Your task to perform on an android device: create a new album in the google photos Image 0: 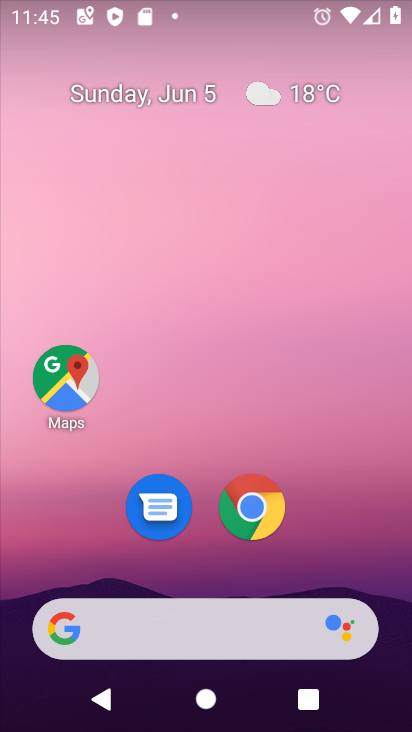
Step 0: drag from (236, 720) to (220, 39)
Your task to perform on an android device: create a new album in the google photos Image 1: 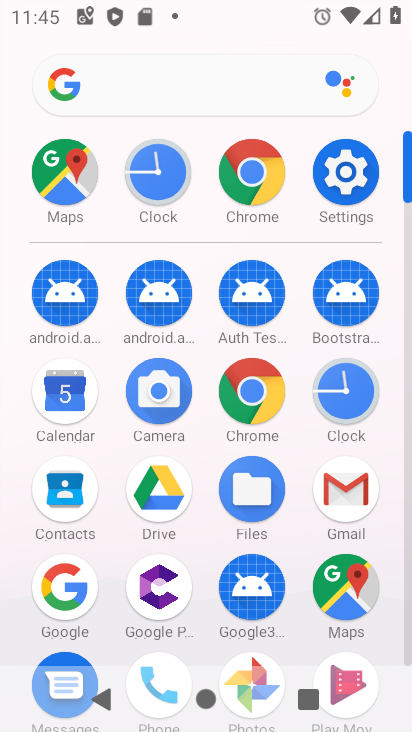
Step 1: drag from (291, 629) to (297, 286)
Your task to perform on an android device: create a new album in the google photos Image 2: 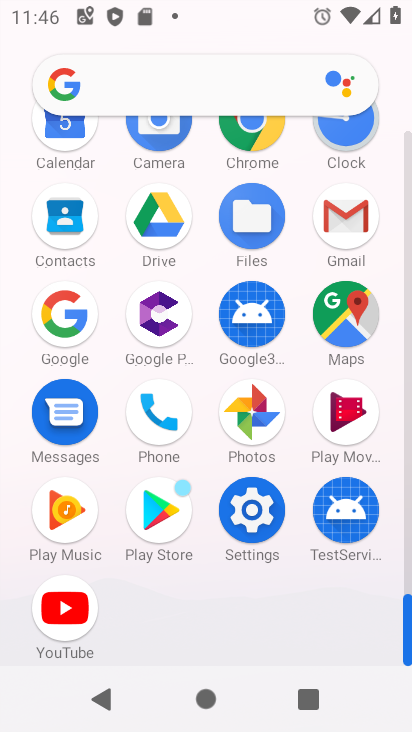
Step 2: click (251, 427)
Your task to perform on an android device: create a new album in the google photos Image 3: 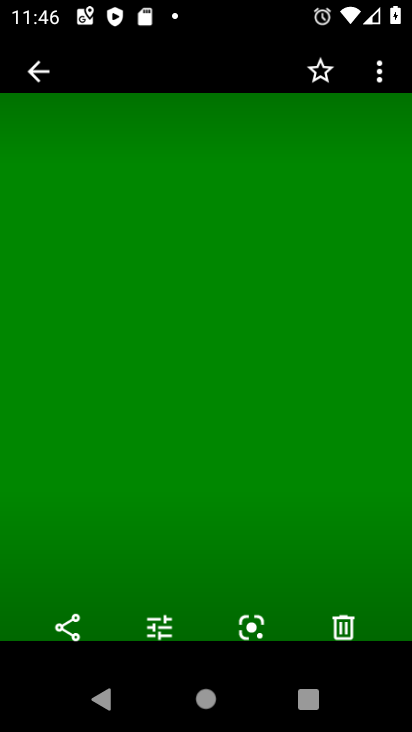
Step 3: click (34, 70)
Your task to perform on an android device: create a new album in the google photos Image 4: 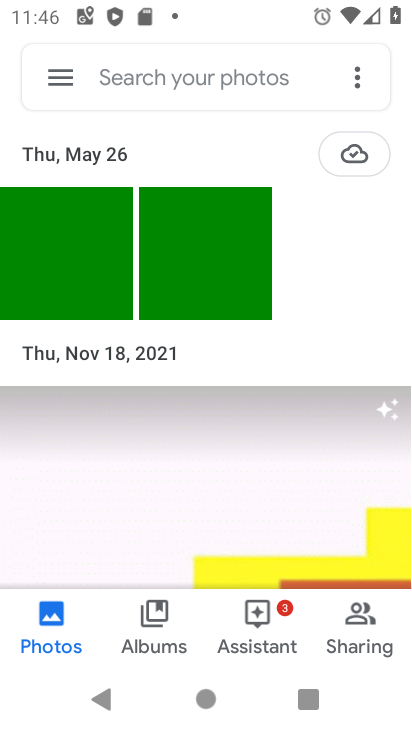
Step 4: click (356, 81)
Your task to perform on an android device: create a new album in the google photos Image 5: 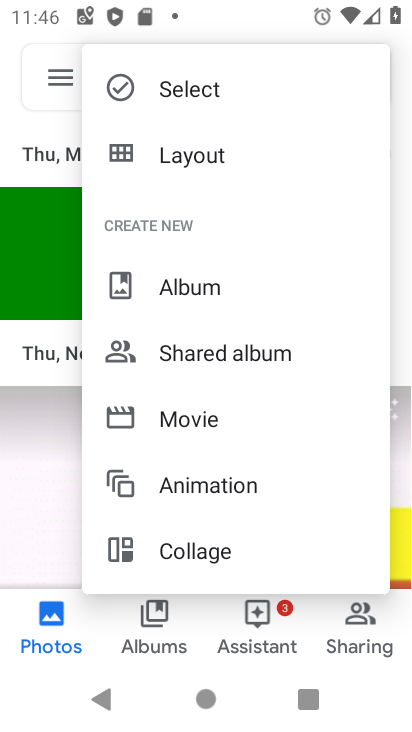
Step 5: click (201, 281)
Your task to perform on an android device: create a new album in the google photos Image 6: 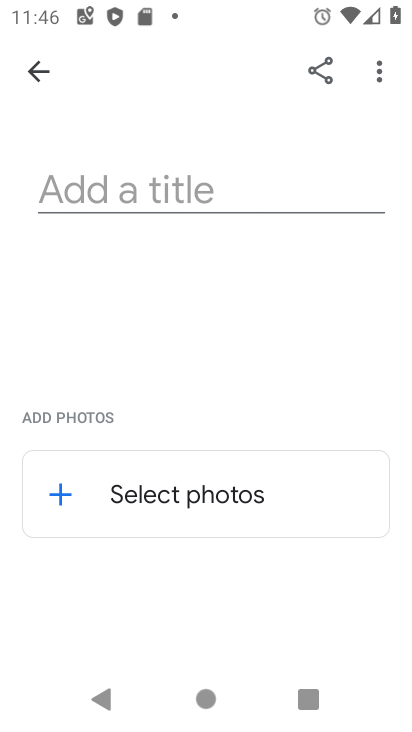
Step 6: click (224, 195)
Your task to perform on an android device: create a new album in the google photos Image 7: 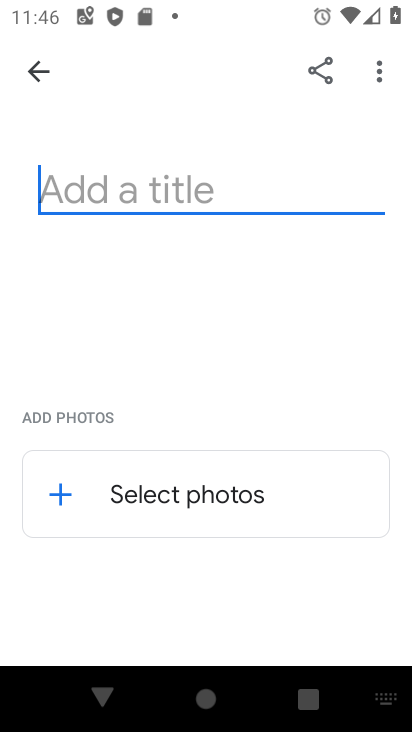
Step 7: type "leech"
Your task to perform on an android device: create a new album in the google photos Image 8: 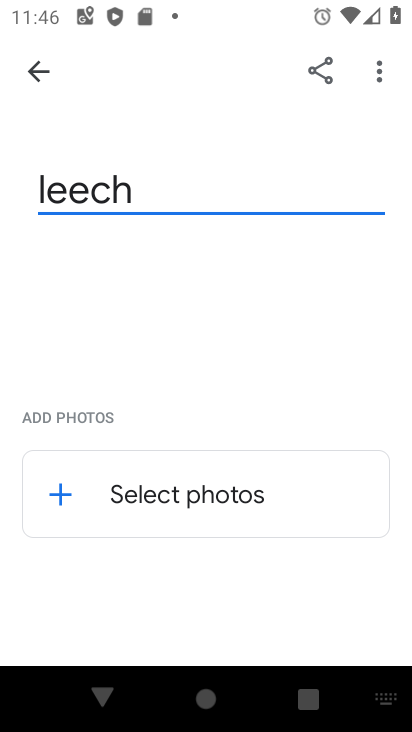
Step 8: click (243, 392)
Your task to perform on an android device: create a new album in the google photos Image 9: 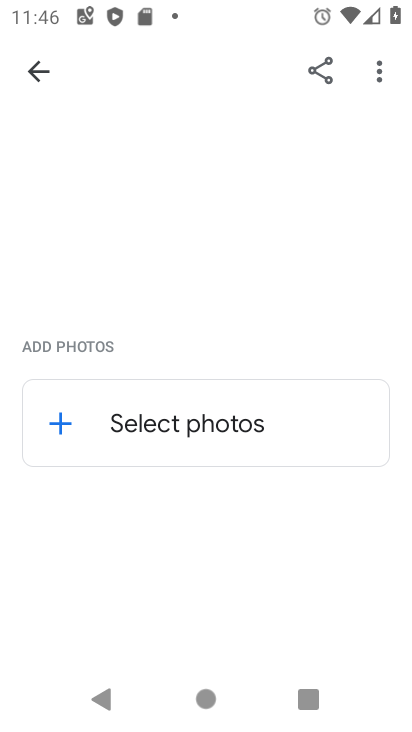
Step 9: click (56, 423)
Your task to perform on an android device: create a new album in the google photos Image 10: 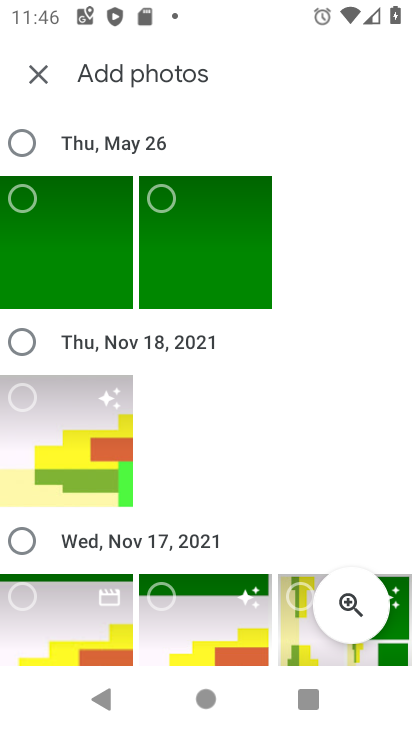
Step 10: click (18, 392)
Your task to perform on an android device: create a new album in the google photos Image 11: 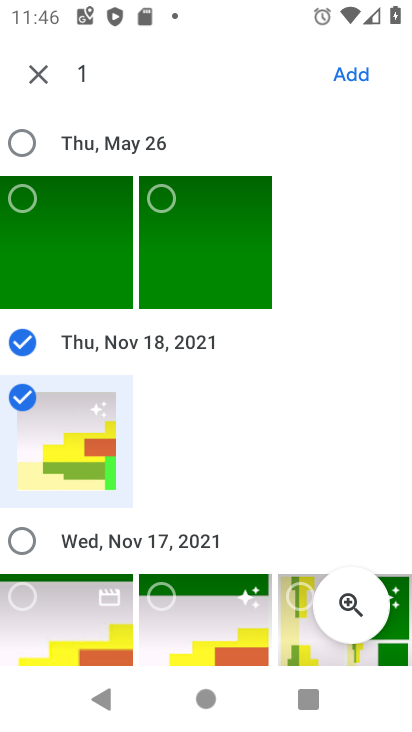
Step 11: click (161, 197)
Your task to perform on an android device: create a new album in the google photos Image 12: 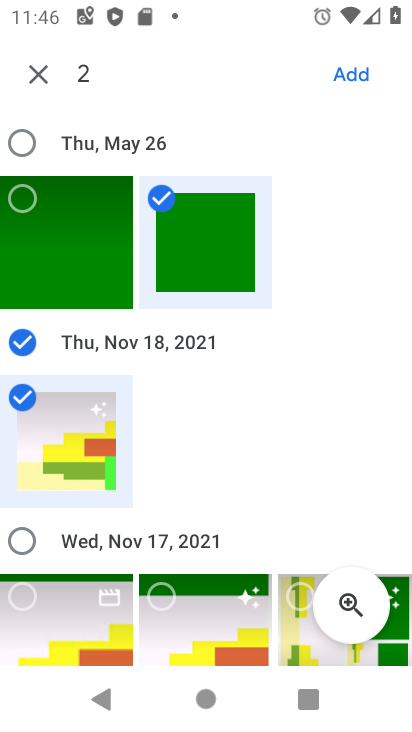
Step 12: click (348, 66)
Your task to perform on an android device: create a new album in the google photos Image 13: 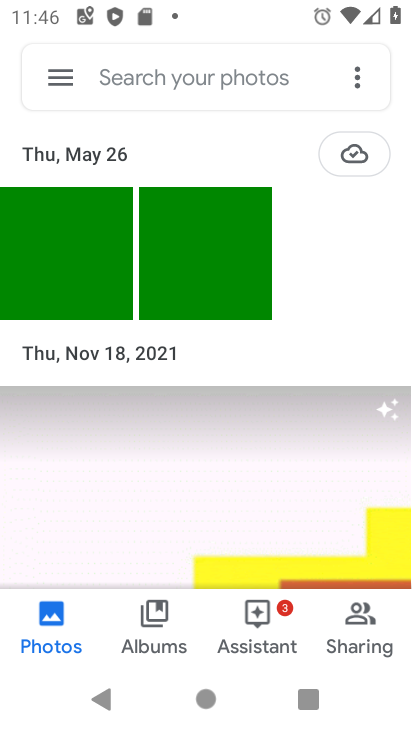
Step 13: task complete